Your task to perform on an android device: Clear the shopping cart on target. Search for jbl charge 4 on target, select the first entry, and add it to the cart. Image 0: 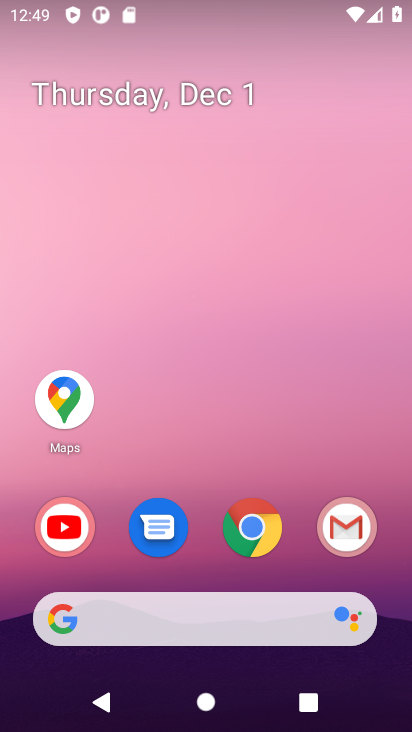
Step 0: click (256, 535)
Your task to perform on an android device: Clear the shopping cart on target. Search for jbl charge 4 on target, select the first entry, and add it to the cart. Image 1: 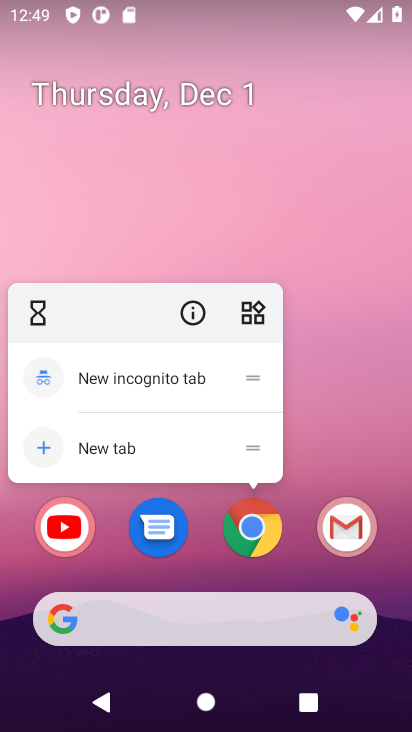
Step 1: click (258, 535)
Your task to perform on an android device: Clear the shopping cart on target. Search for jbl charge 4 on target, select the first entry, and add it to the cart. Image 2: 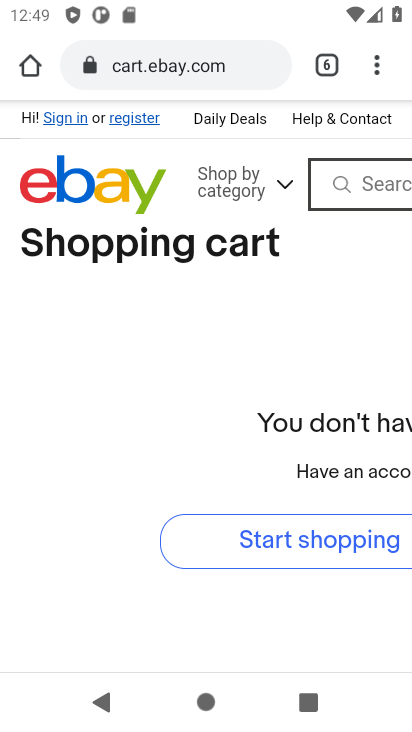
Step 2: click (166, 61)
Your task to perform on an android device: Clear the shopping cart on target. Search for jbl charge 4 on target, select the first entry, and add it to the cart. Image 3: 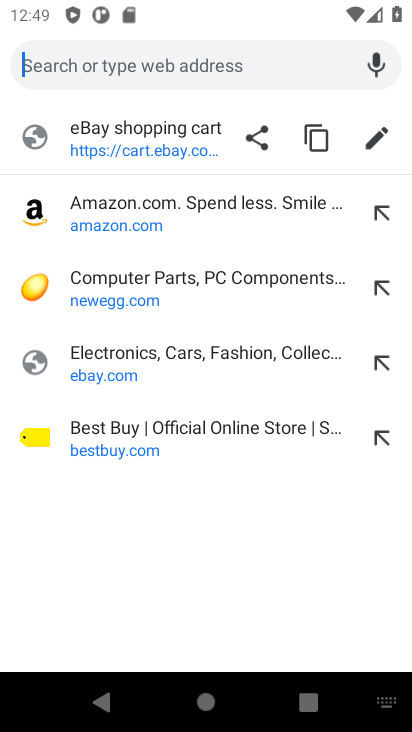
Step 3: type "target.com"
Your task to perform on an android device: Clear the shopping cart on target. Search for jbl charge 4 on target, select the first entry, and add it to the cart. Image 4: 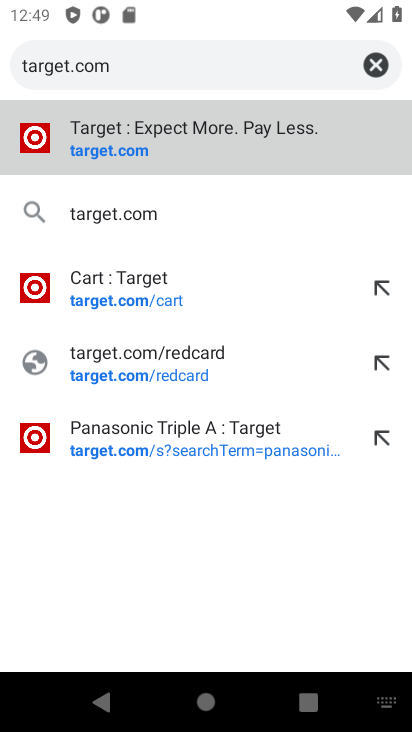
Step 4: click (131, 141)
Your task to perform on an android device: Clear the shopping cart on target. Search for jbl charge 4 on target, select the first entry, and add it to the cart. Image 5: 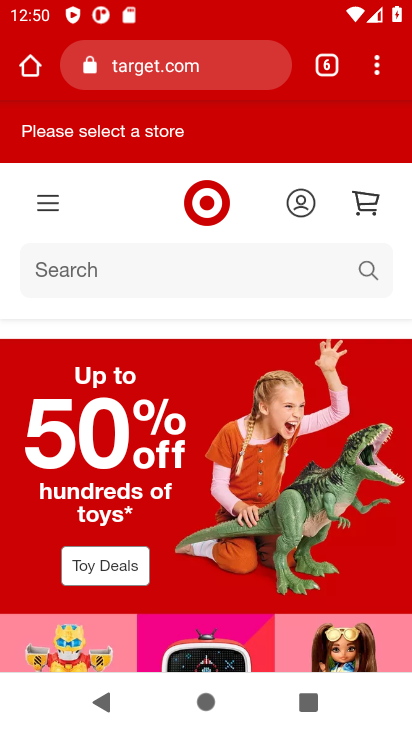
Step 5: click (354, 190)
Your task to perform on an android device: Clear the shopping cart on target. Search for jbl charge 4 on target, select the first entry, and add it to the cart. Image 6: 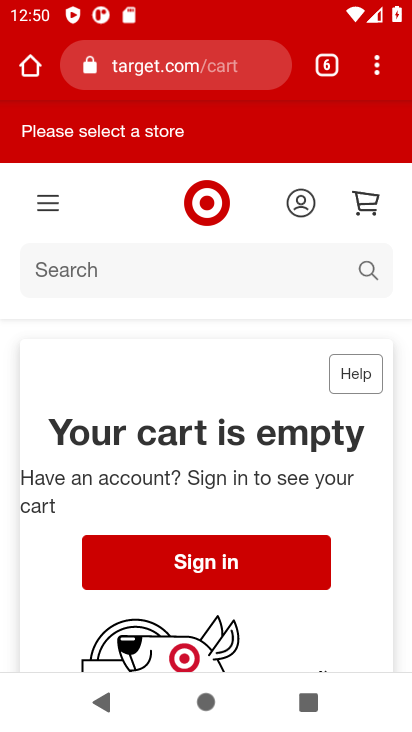
Step 6: click (66, 272)
Your task to perform on an android device: Clear the shopping cart on target. Search for jbl charge 4 on target, select the first entry, and add it to the cart. Image 7: 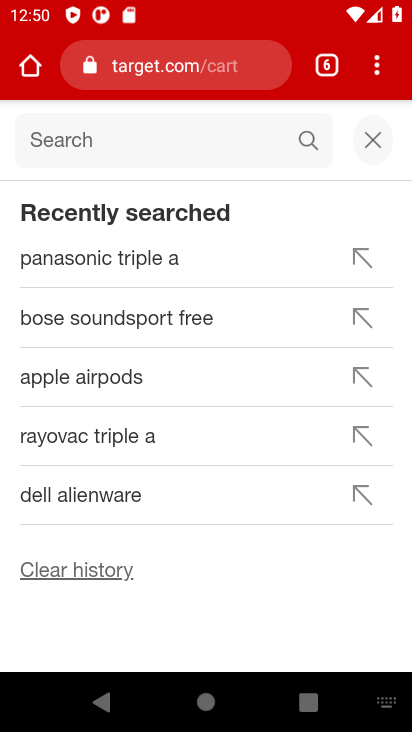
Step 7: type " jbl charge 4"
Your task to perform on an android device: Clear the shopping cart on target. Search for jbl charge 4 on target, select the first entry, and add it to the cart. Image 8: 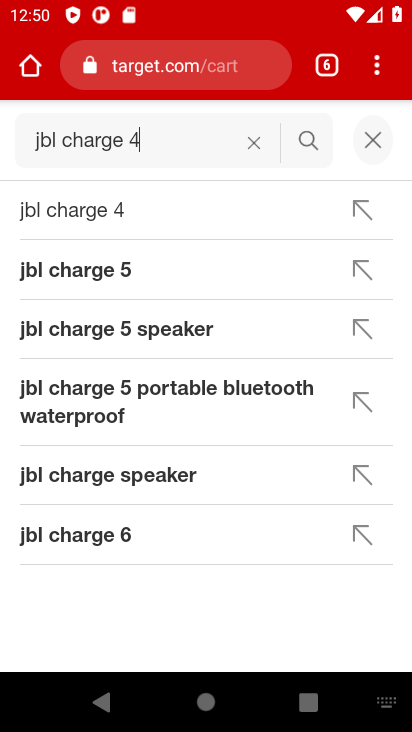
Step 8: click (59, 215)
Your task to perform on an android device: Clear the shopping cart on target. Search for jbl charge 4 on target, select the first entry, and add it to the cart. Image 9: 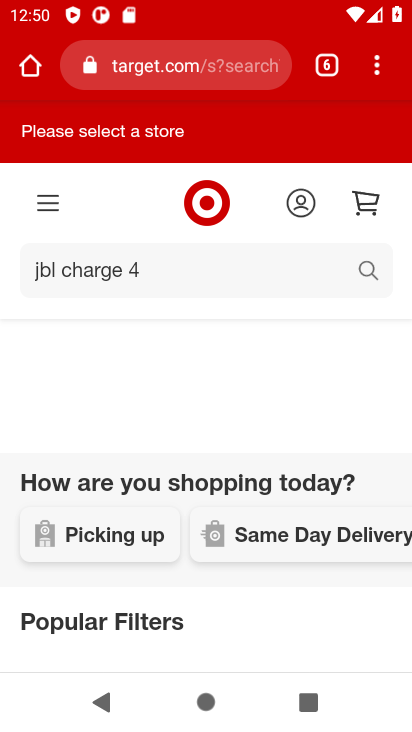
Step 9: task complete